Your task to perform on an android device: find snoozed emails in the gmail app Image 0: 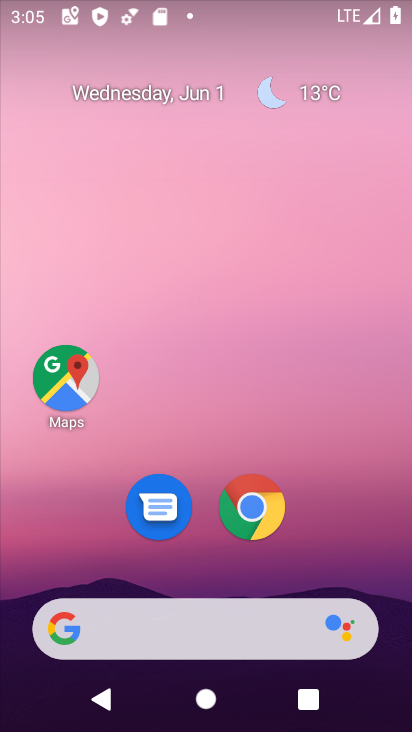
Step 0: drag from (345, 553) to (148, 71)
Your task to perform on an android device: find snoozed emails in the gmail app Image 1: 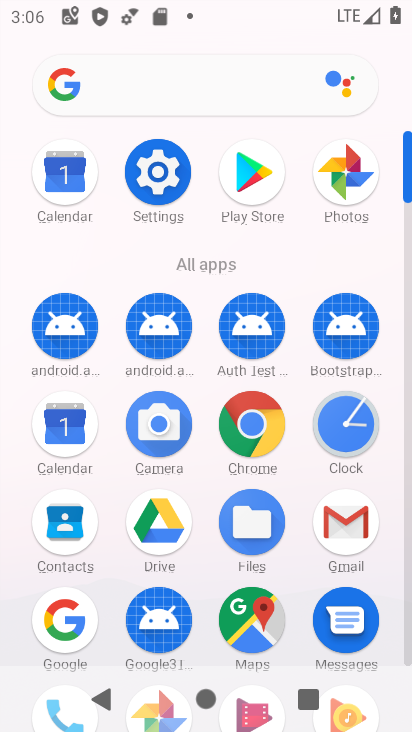
Step 1: click (354, 540)
Your task to perform on an android device: find snoozed emails in the gmail app Image 2: 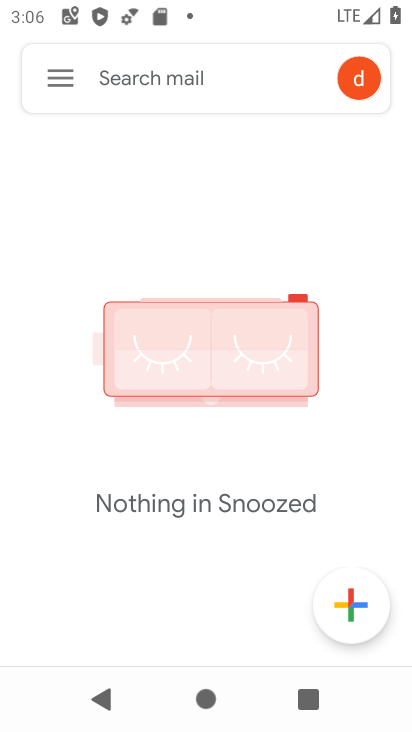
Step 2: click (55, 71)
Your task to perform on an android device: find snoozed emails in the gmail app Image 3: 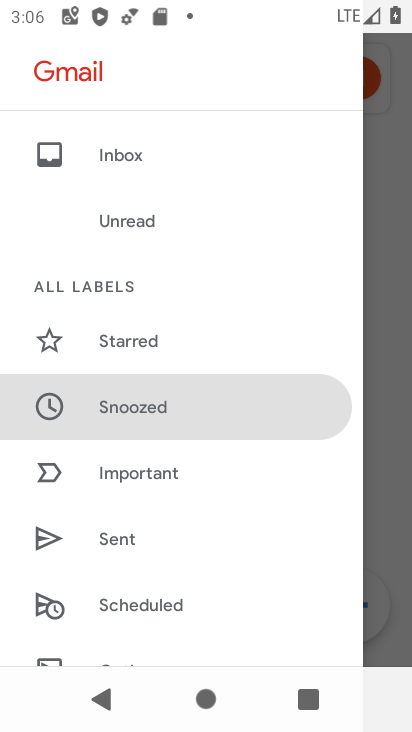
Step 3: task complete